Your task to perform on an android device: Go to accessibility settings Image 0: 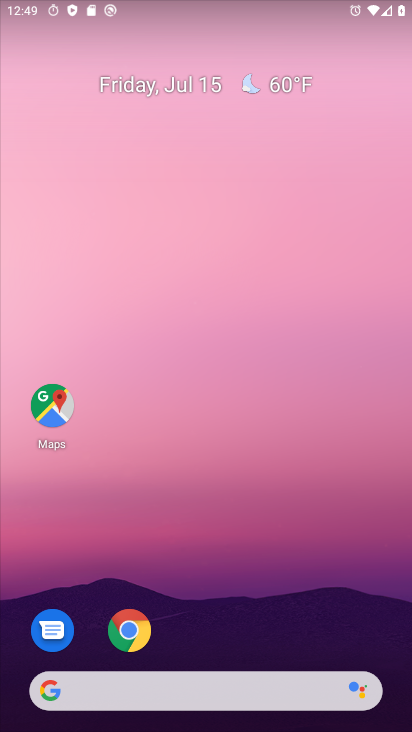
Step 0: drag from (170, 649) to (189, 298)
Your task to perform on an android device: Go to accessibility settings Image 1: 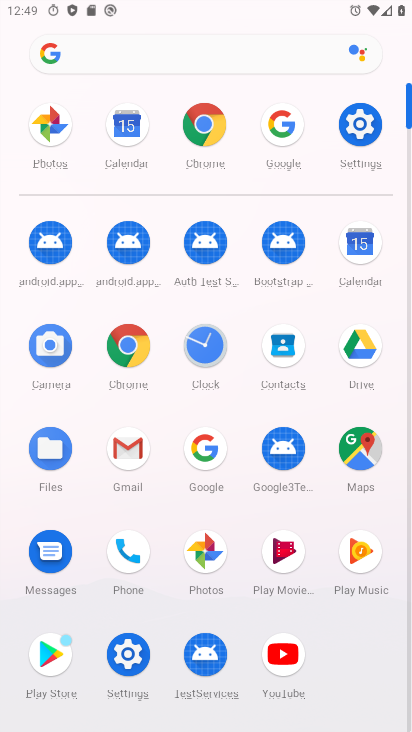
Step 1: click (360, 123)
Your task to perform on an android device: Go to accessibility settings Image 2: 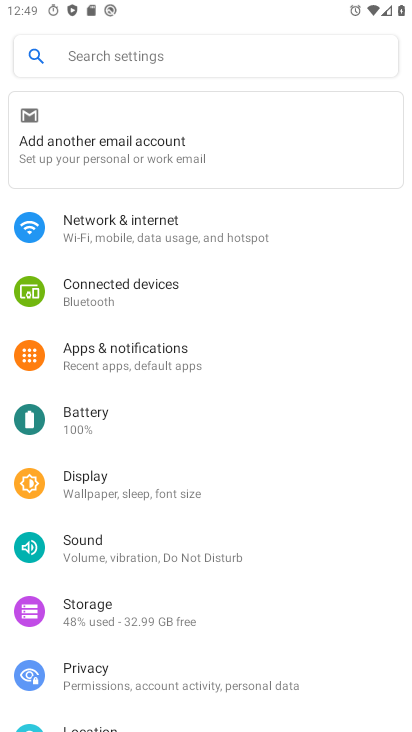
Step 2: drag from (139, 434) to (147, 263)
Your task to perform on an android device: Go to accessibility settings Image 3: 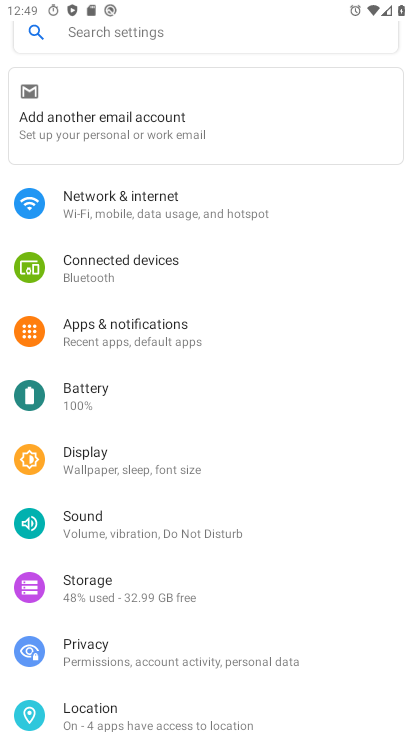
Step 3: drag from (108, 670) to (158, 381)
Your task to perform on an android device: Go to accessibility settings Image 4: 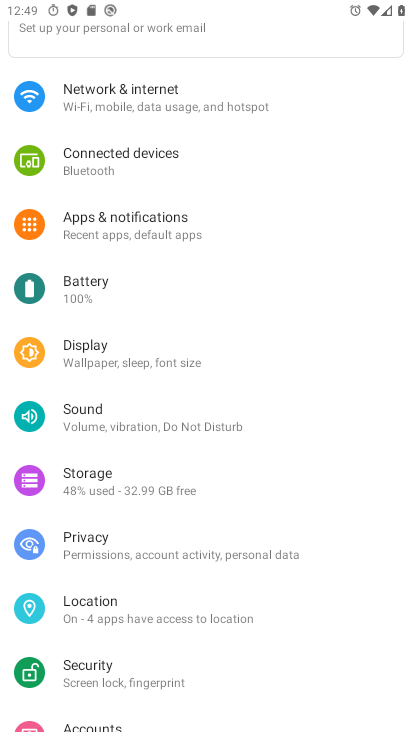
Step 4: drag from (129, 648) to (153, 402)
Your task to perform on an android device: Go to accessibility settings Image 5: 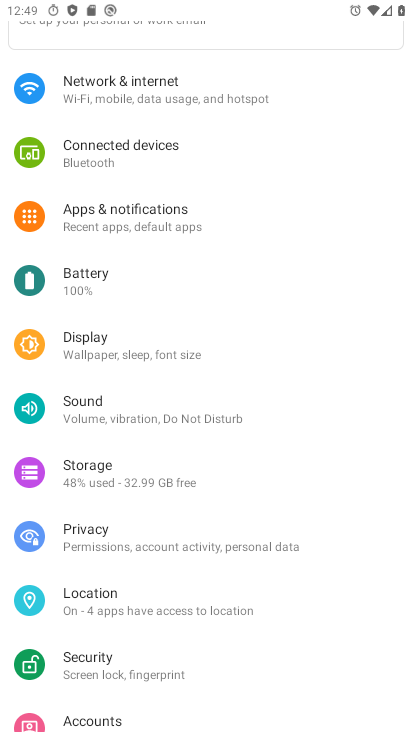
Step 5: click (104, 521)
Your task to perform on an android device: Go to accessibility settings Image 6: 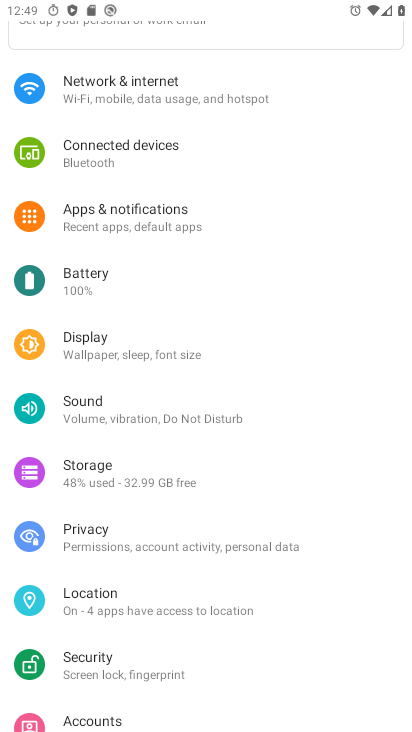
Step 6: drag from (135, 647) to (165, 442)
Your task to perform on an android device: Go to accessibility settings Image 7: 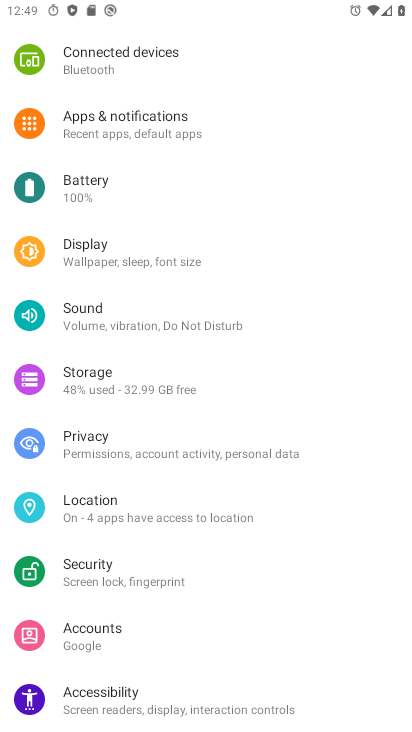
Step 7: click (84, 701)
Your task to perform on an android device: Go to accessibility settings Image 8: 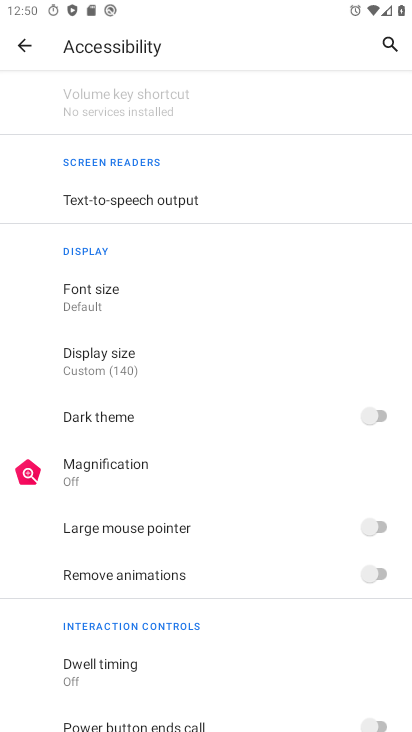
Step 8: task complete